Your task to perform on an android device: uninstall "Firefox Browser" Image 0: 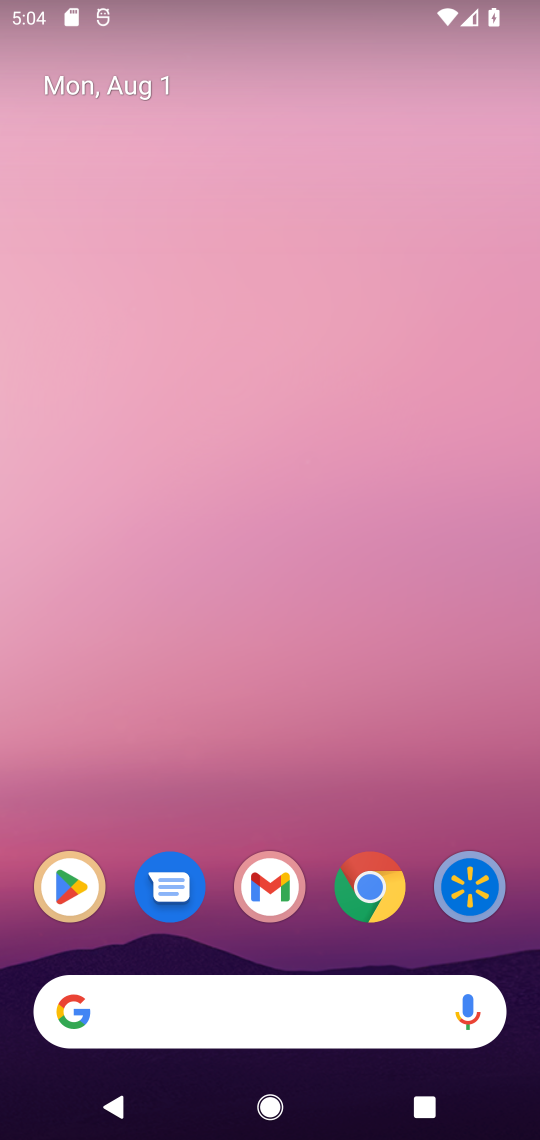
Step 0: click (64, 907)
Your task to perform on an android device: uninstall "Firefox Browser" Image 1: 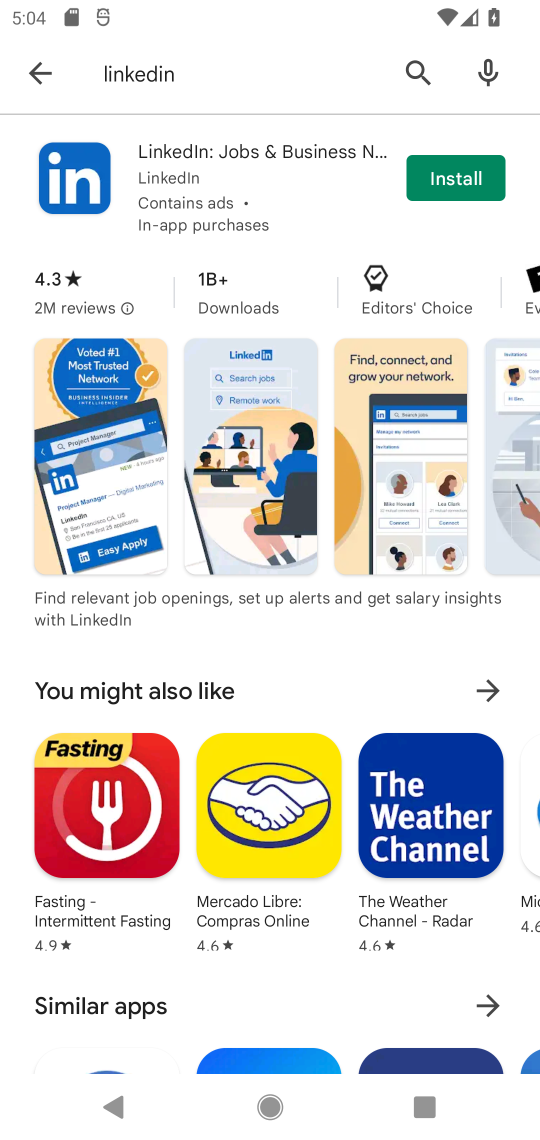
Step 1: click (22, 97)
Your task to perform on an android device: uninstall "Firefox Browser" Image 2: 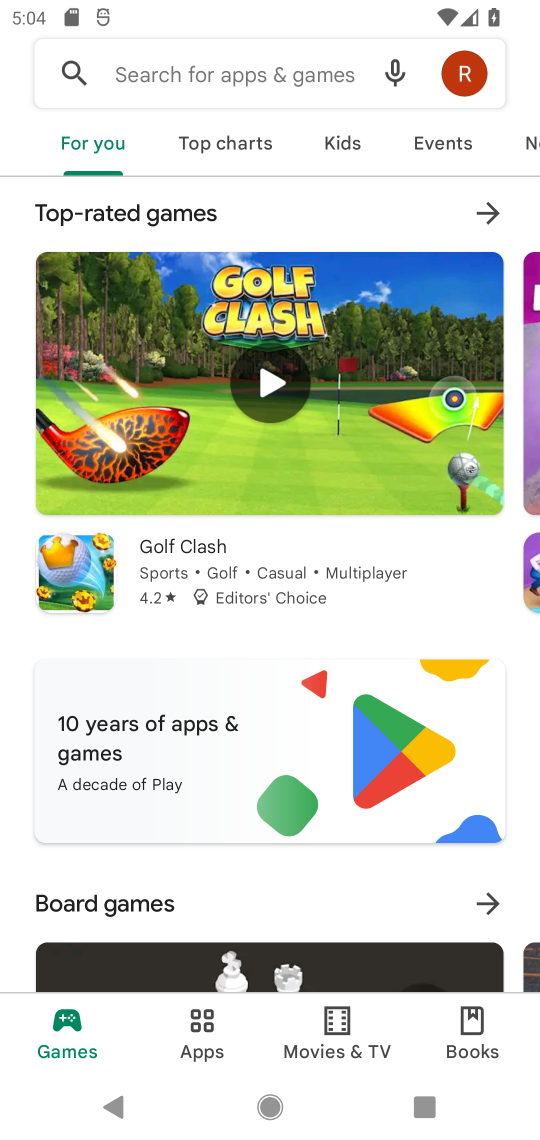
Step 2: click (185, 90)
Your task to perform on an android device: uninstall "Firefox Browser" Image 3: 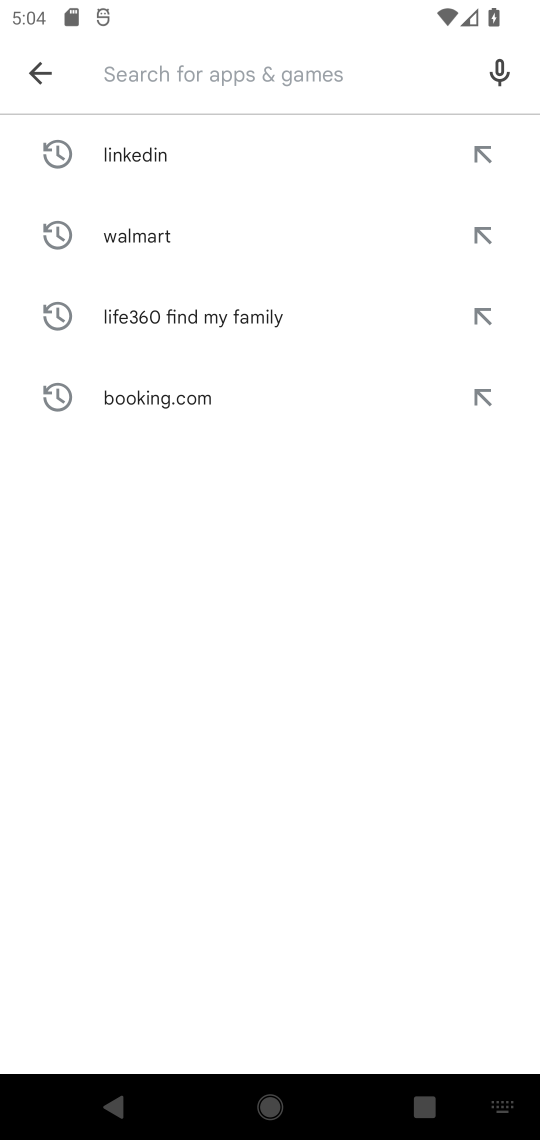
Step 3: type "Firefox"
Your task to perform on an android device: uninstall "Firefox Browser" Image 4: 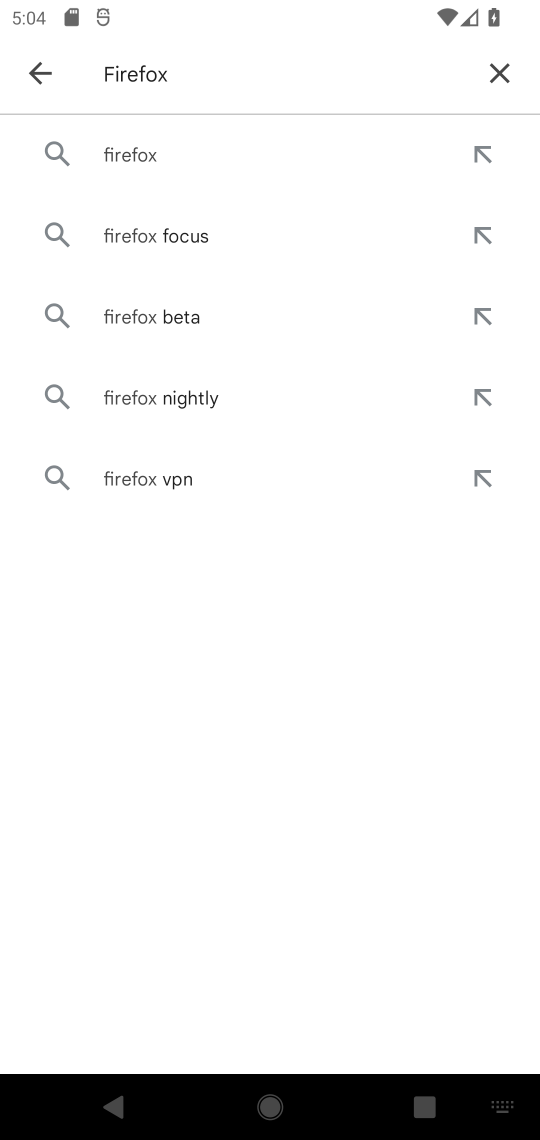
Step 4: click (124, 121)
Your task to perform on an android device: uninstall "Firefox Browser" Image 5: 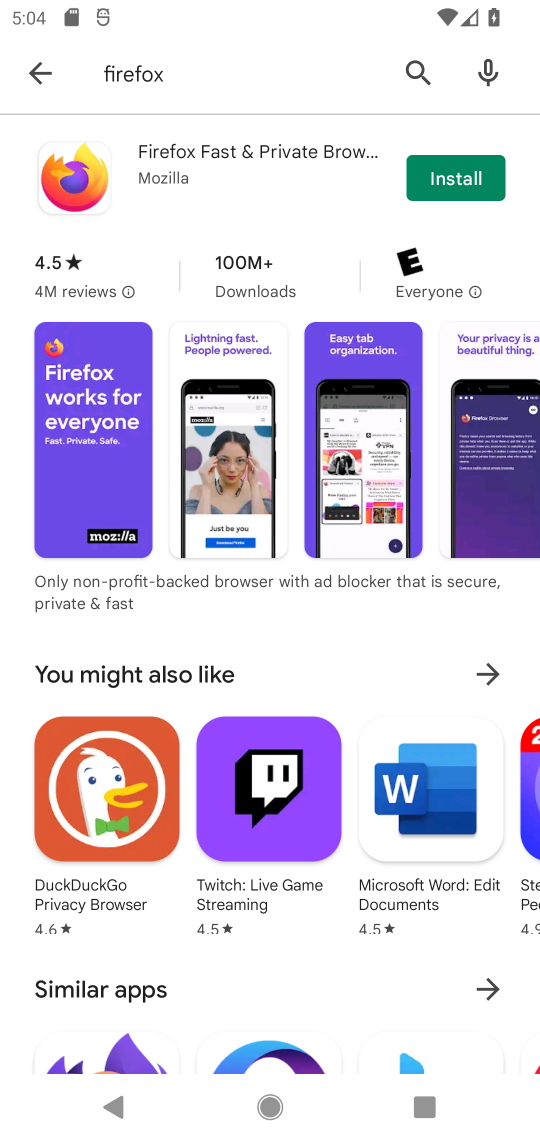
Step 5: task complete